Your task to perform on an android device: Open settings on Google Maps Image 0: 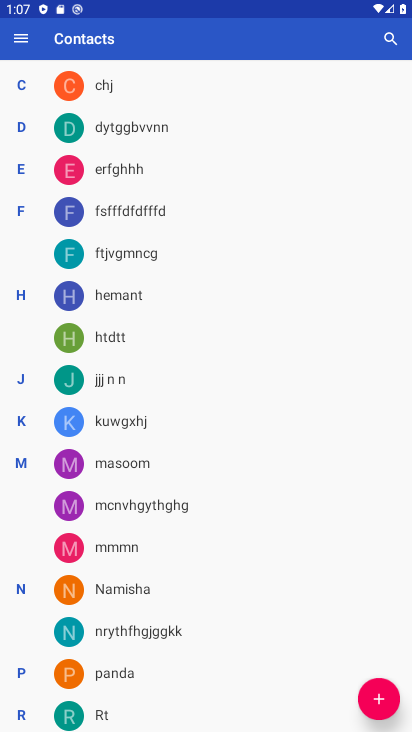
Step 0: press home button
Your task to perform on an android device: Open settings on Google Maps Image 1: 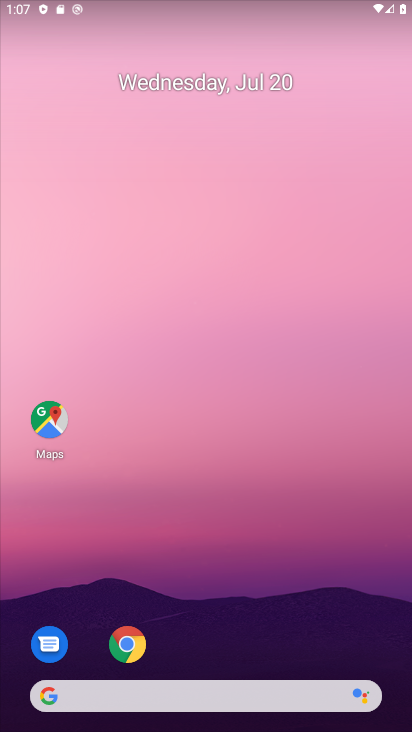
Step 1: press home button
Your task to perform on an android device: Open settings on Google Maps Image 2: 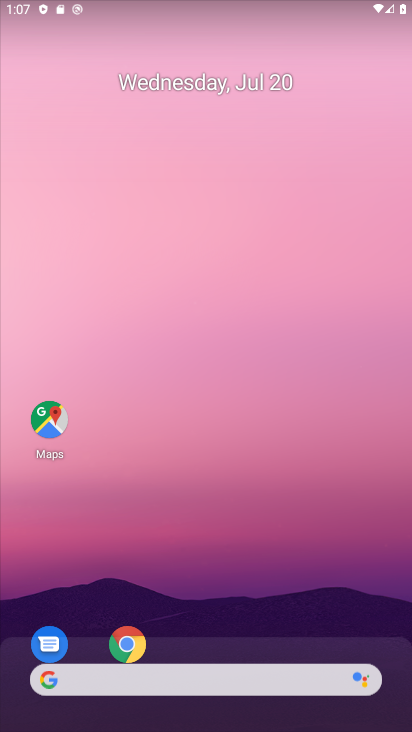
Step 2: click (47, 417)
Your task to perform on an android device: Open settings on Google Maps Image 3: 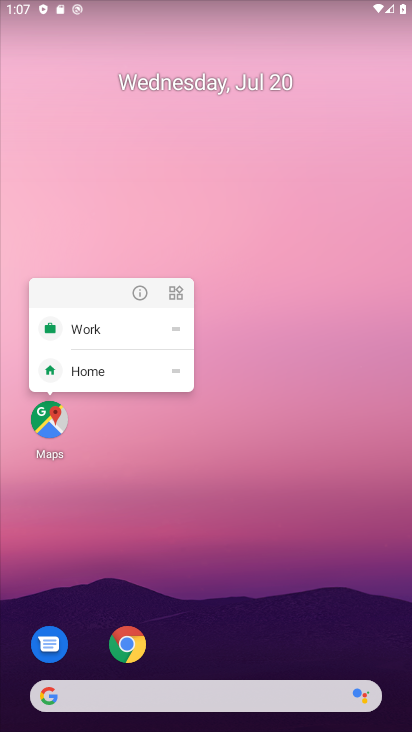
Step 3: click (58, 414)
Your task to perform on an android device: Open settings on Google Maps Image 4: 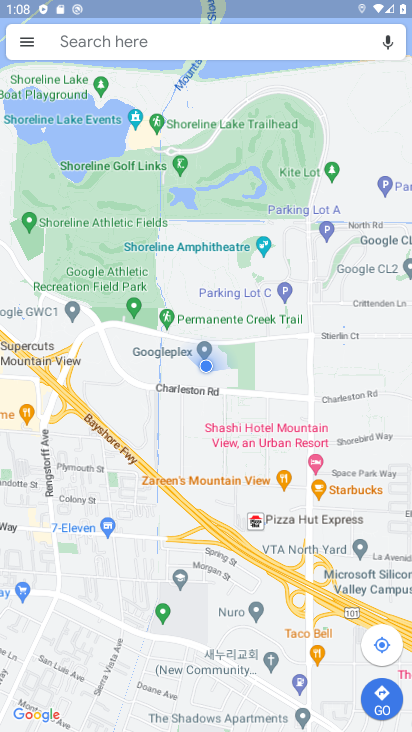
Step 4: click (25, 40)
Your task to perform on an android device: Open settings on Google Maps Image 5: 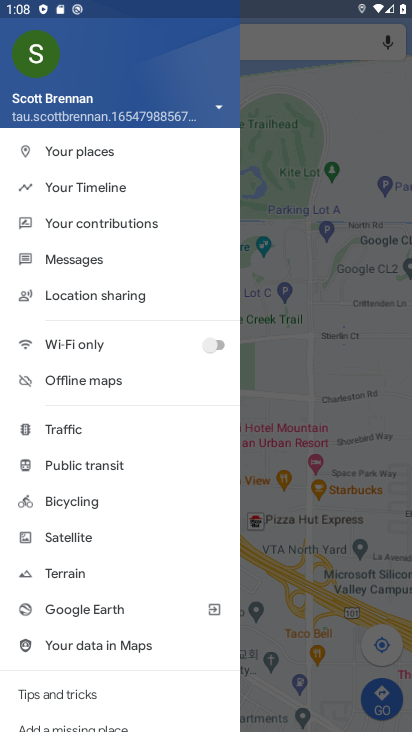
Step 5: drag from (84, 675) to (166, 298)
Your task to perform on an android device: Open settings on Google Maps Image 6: 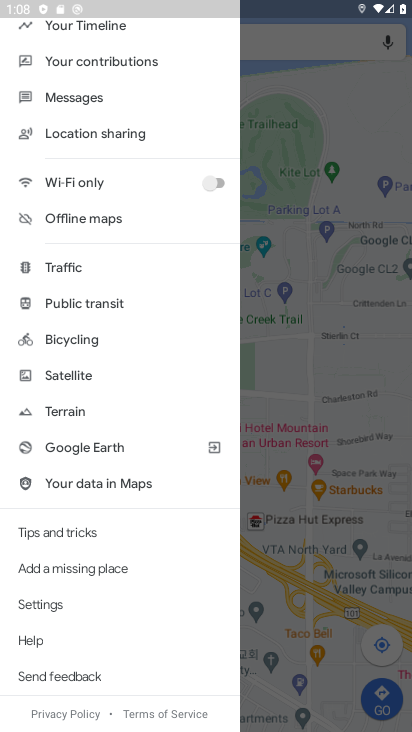
Step 6: click (60, 608)
Your task to perform on an android device: Open settings on Google Maps Image 7: 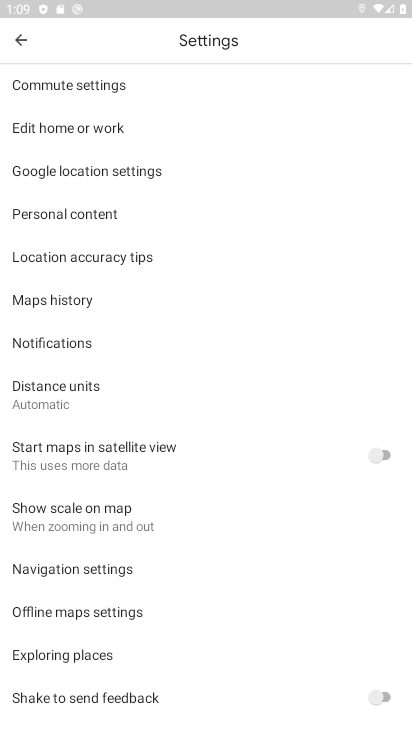
Step 7: task complete